Your task to perform on an android device: Open display settings Image 0: 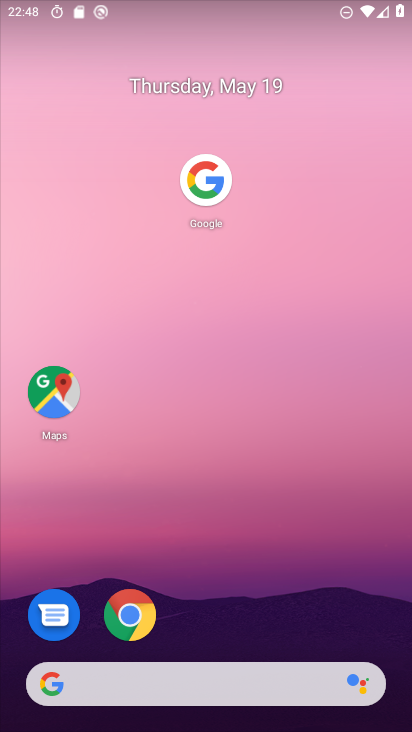
Step 0: drag from (231, 563) to (262, 45)
Your task to perform on an android device: Open display settings Image 1: 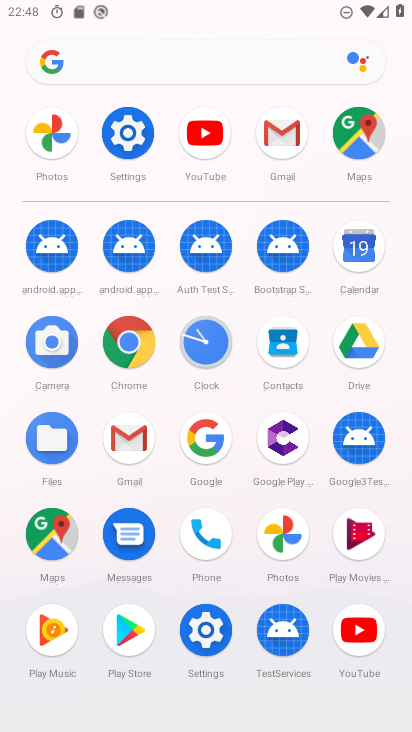
Step 1: click (128, 137)
Your task to perform on an android device: Open display settings Image 2: 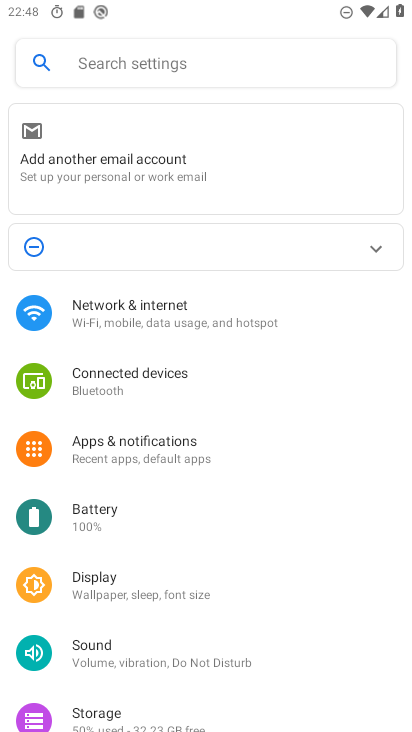
Step 2: click (126, 588)
Your task to perform on an android device: Open display settings Image 3: 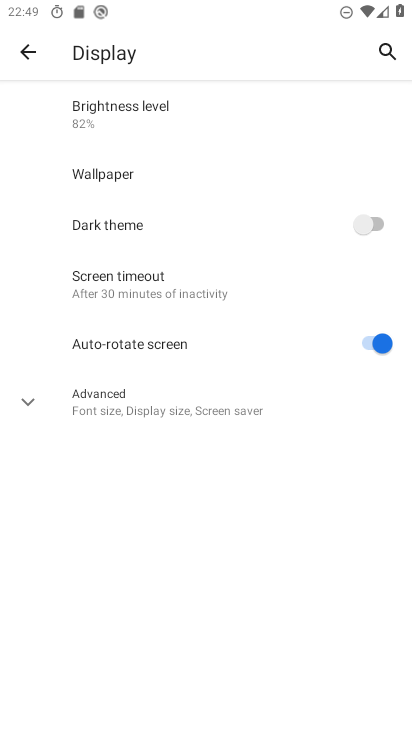
Step 3: task complete